Your task to perform on an android device: Show me productivity apps on the Play Store Image 0: 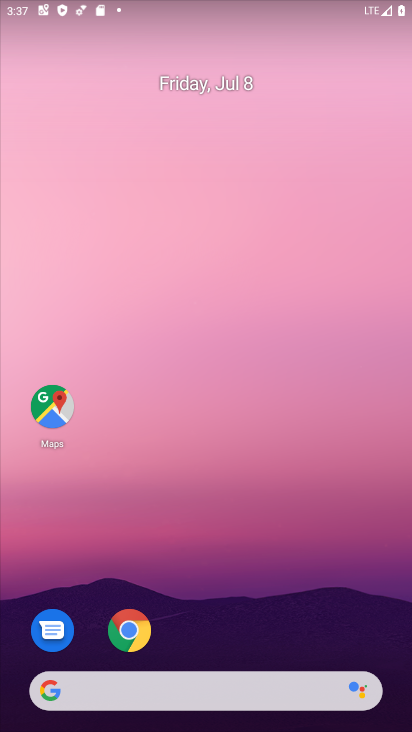
Step 0: drag from (219, 642) to (188, 163)
Your task to perform on an android device: Show me productivity apps on the Play Store Image 1: 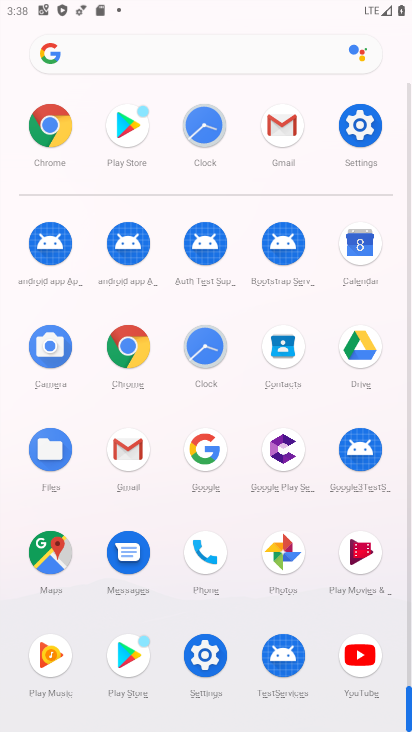
Step 1: click (128, 129)
Your task to perform on an android device: Show me productivity apps on the Play Store Image 2: 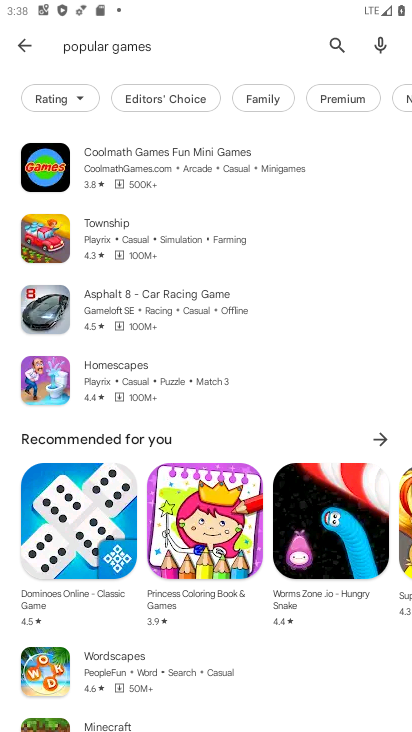
Step 2: press back button
Your task to perform on an android device: Show me productivity apps on the Play Store Image 3: 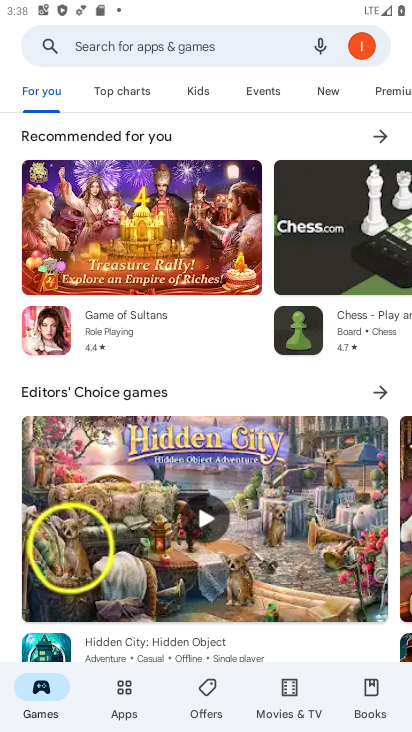
Step 3: click (126, 692)
Your task to perform on an android device: Show me productivity apps on the Play Store Image 4: 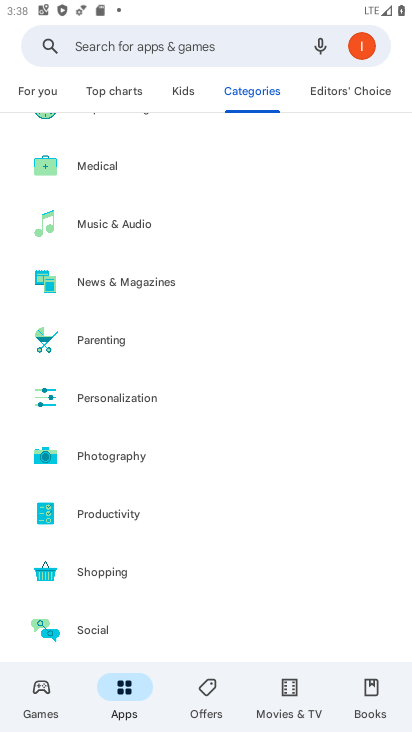
Step 4: click (118, 510)
Your task to perform on an android device: Show me productivity apps on the Play Store Image 5: 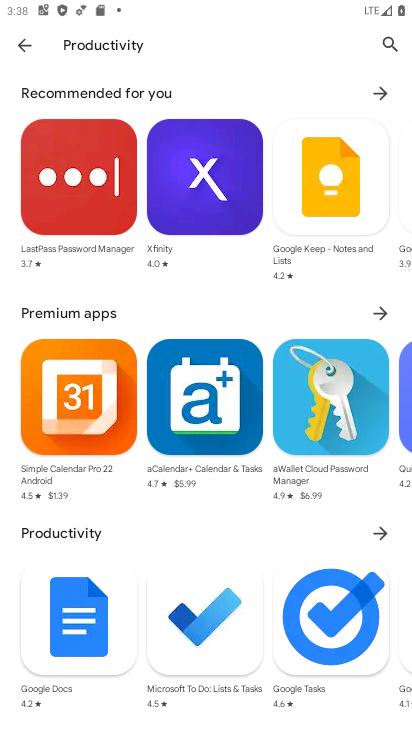
Step 5: task complete